Your task to perform on an android device: Open the stopwatch Image 0: 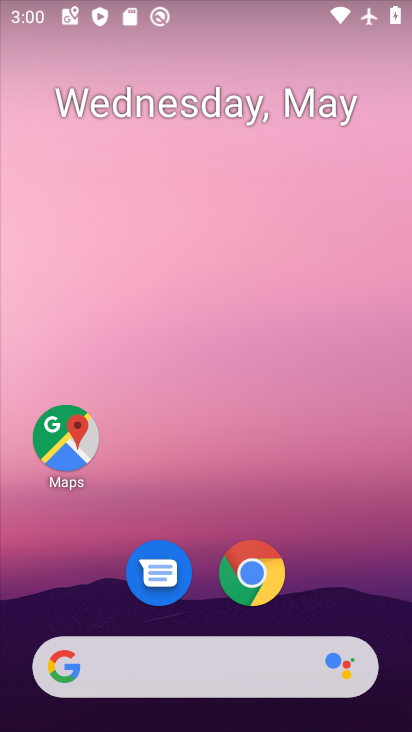
Step 0: drag from (330, 586) to (371, 47)
Your task to perform on an android device: Open the stopwatch Image 1: 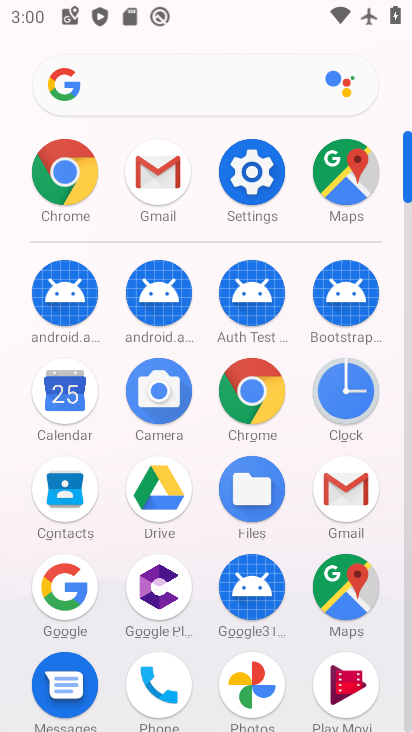
Step 1: click (338, 394)
Your task to perform on an android device: Open the stopwatch Image 2: 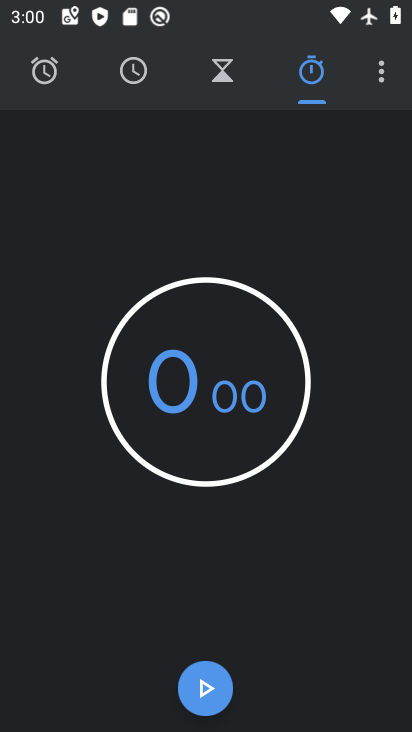
Step 2: task complete